Your task to perform on an android device: Go to privacy settings Image 0: 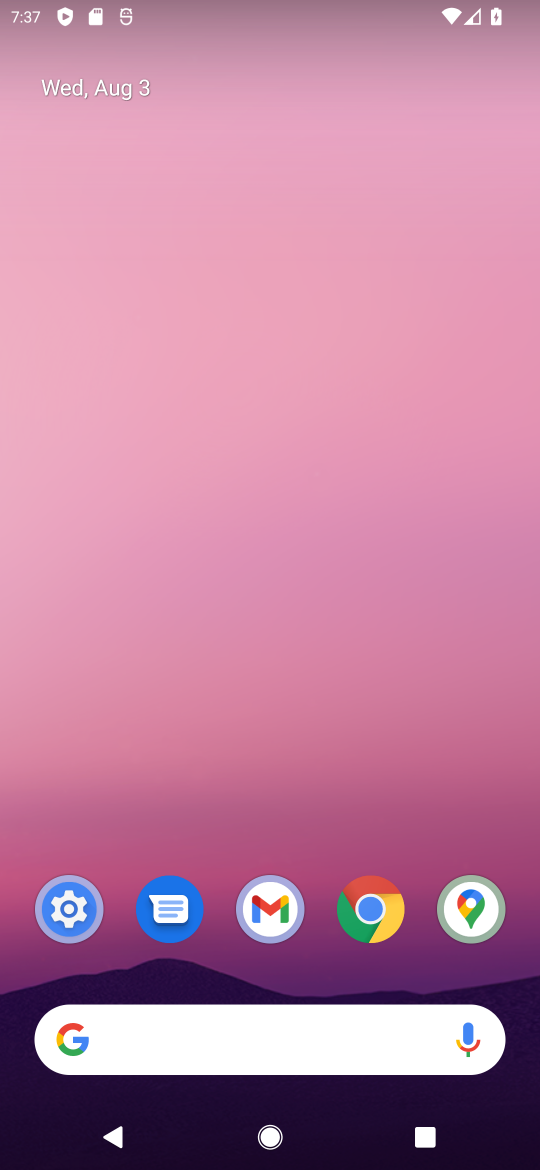
Step 0: drag from (310, 841) to (363, 145)
Your task to perform on an android device: Go to privacy settings Image 1: 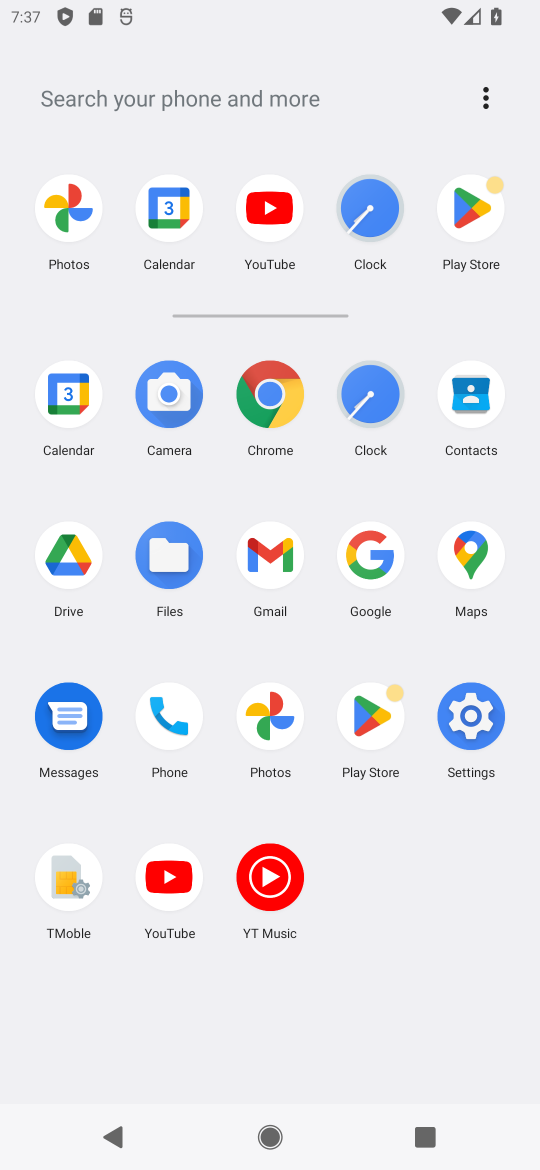
Step 1: click (277, 406)
Your task to perform on an android device: Go to privacy settings Image 2: 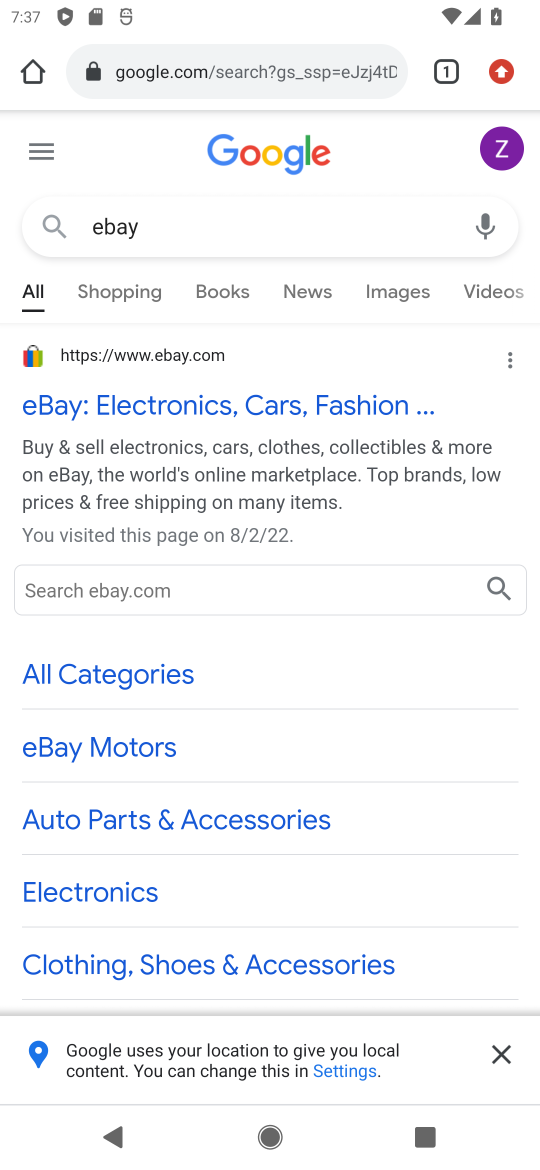
Step 2: click (507, 73)
Your task to perform on an android device: Go to privacy settings Image 3: 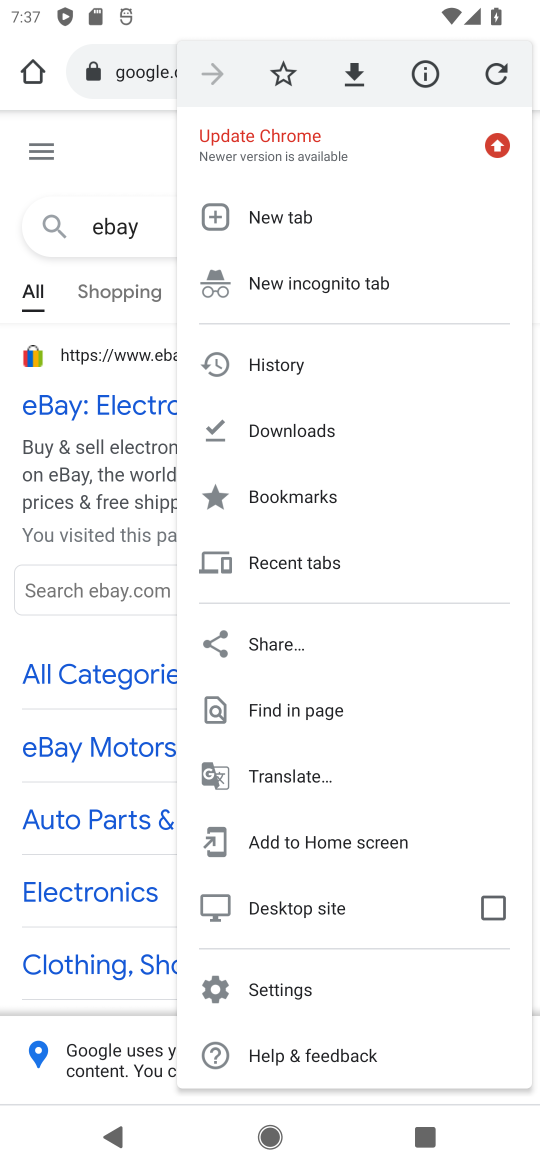
Step 3: drag from (407, 641) to (425, 501)
Your task to perform on an android device: Go to privacy settings Image 4: 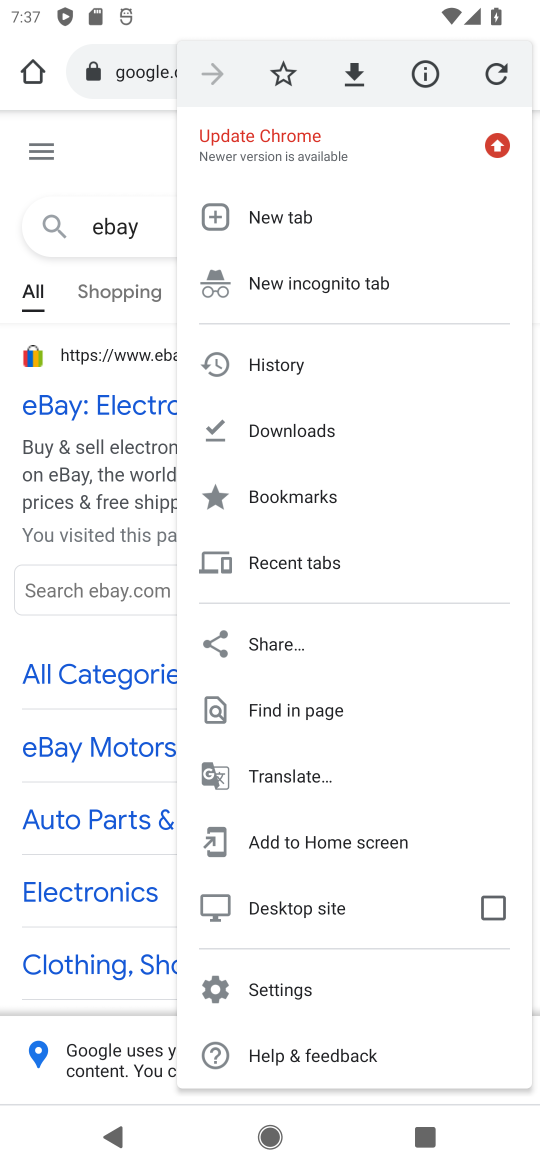
Step 4: click (303, 983)
Your task to perform on an android device: Go to privacy settings Image 5: 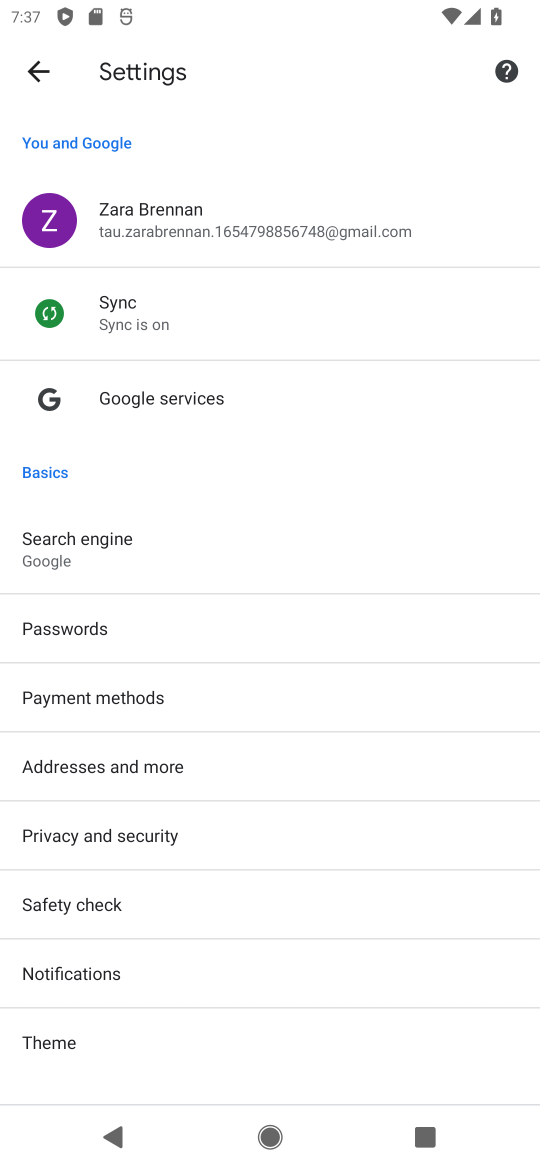
Step 5: drag from (366, 843) to (392, 584)
Your task to perform on an android device: Go to privacy settings Image 6: 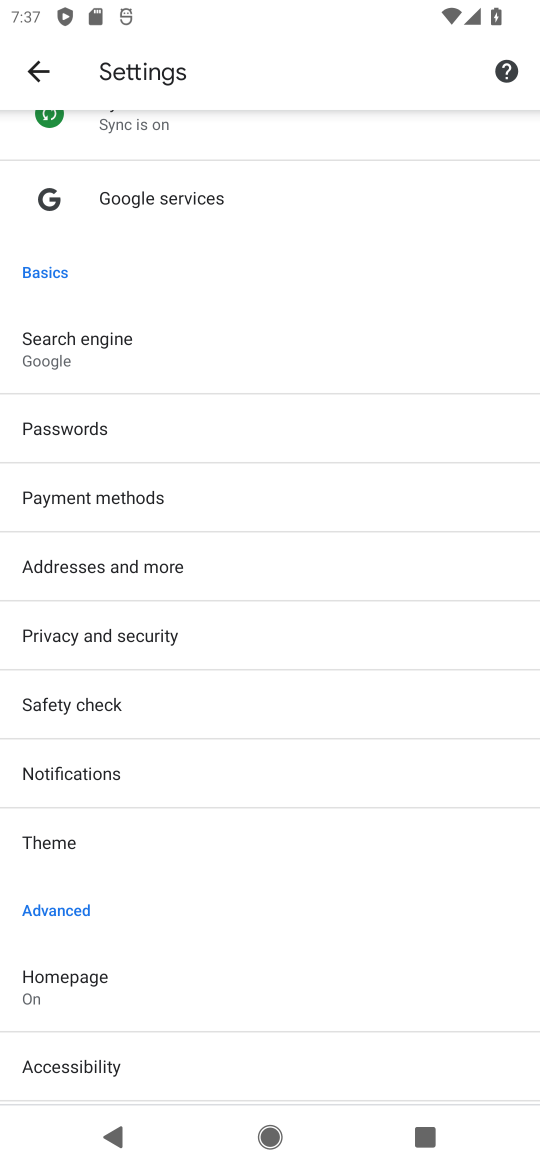
Step 6: drag from (382, 885) to (400, 695)
Your task to perform on an android device: Go to privacy settings Image 7: 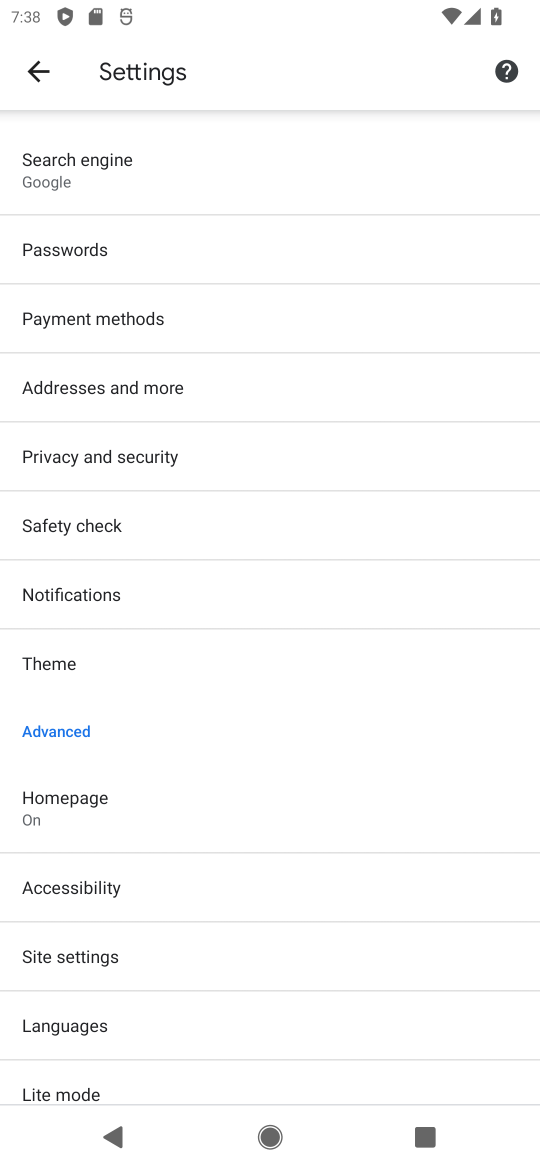
Step 7: drag from (339, 964) to (332, 638)
Your task to perform on an android device: Go to privacy settings Image 8: 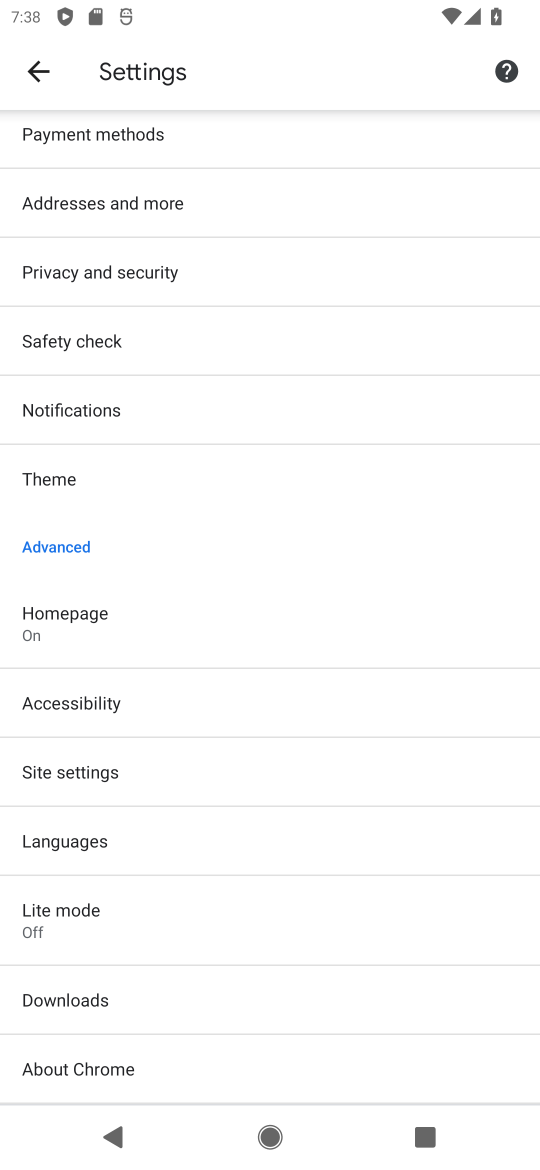
Step 8: drag from (365, 844) to (341, 429)
Your task to perform on an android device: Go to privacy settings Image 9: 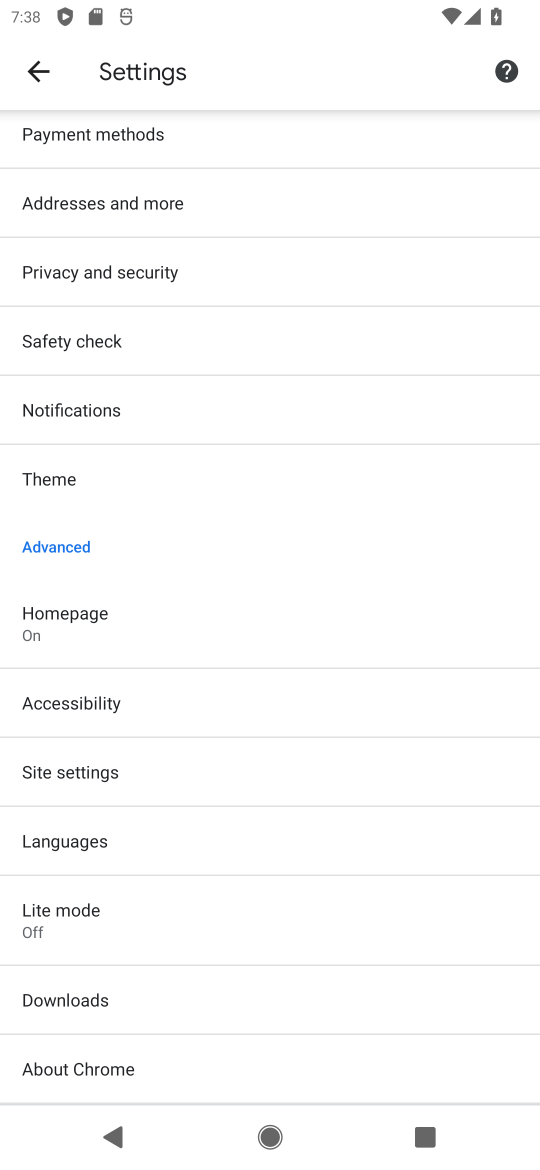
Step 9: click (158, 269)
Your task to perform on an android device: Go to privacy settings Image 10: 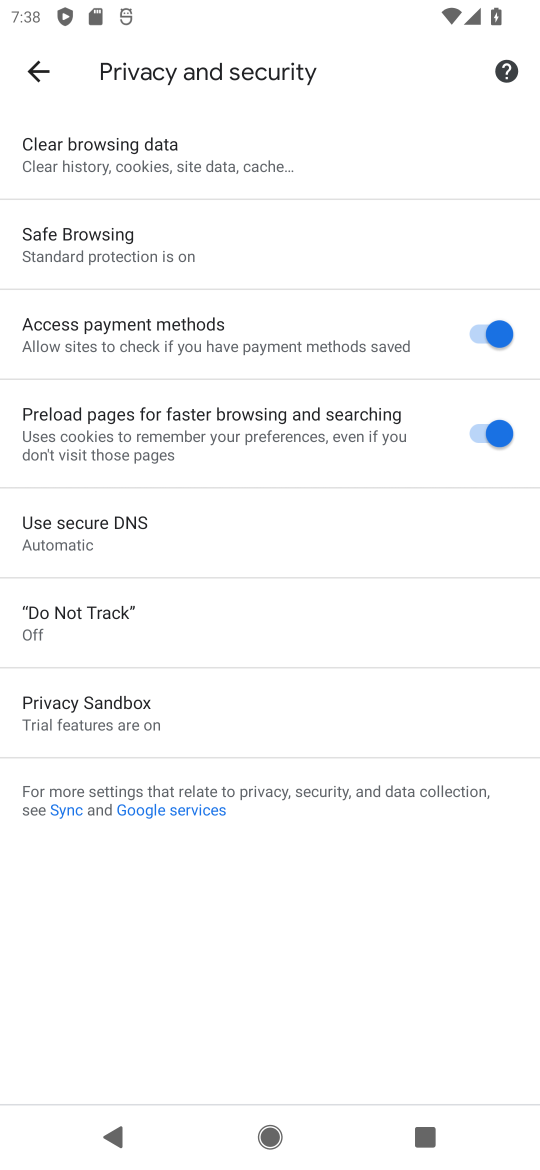
Step 10: task complete